Your task to perform on an android device: Search for vegetarian restaurants on Maps Image 0: 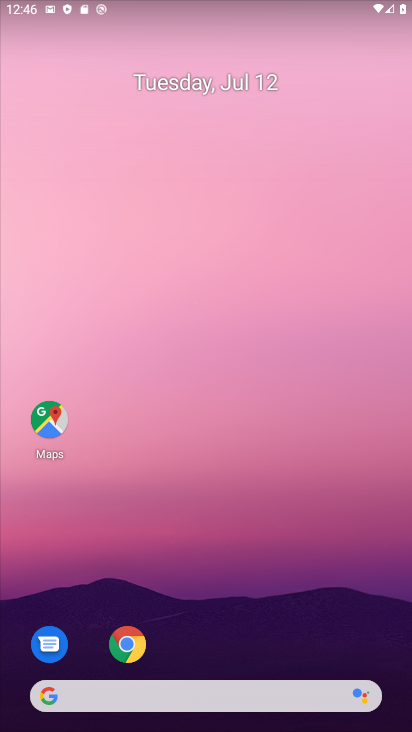
Step 0: drag from (239, 639) to (356, 85)
Your task to perform on an android device: Search for vegetarian restaurants on Maps Image 1: 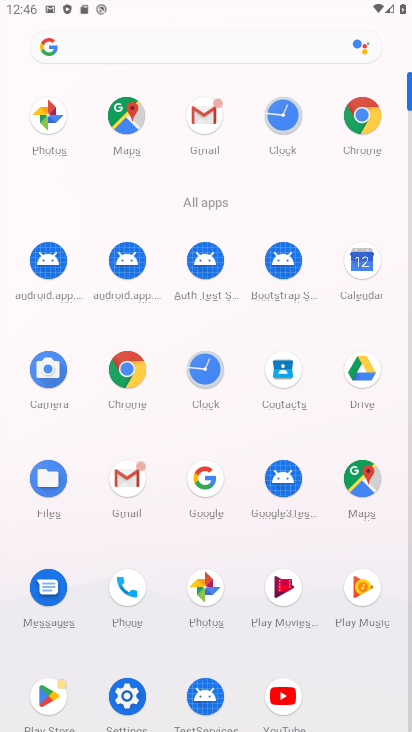
Step 1: click (350, 489)
Your task to perform on an android device: Search for vegetarian restaurants on Maps Image 2: 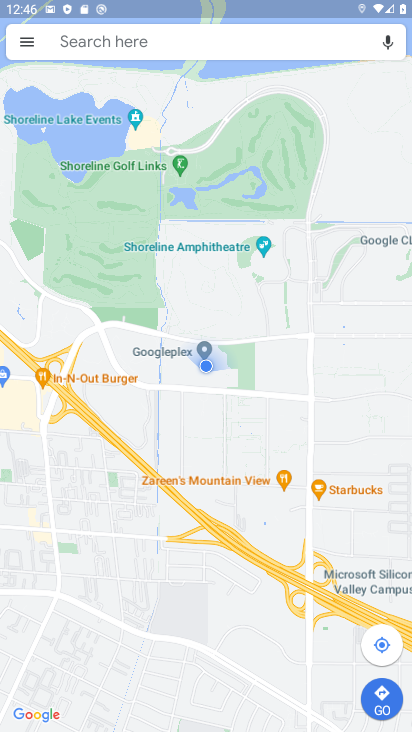
Step 2: click (192, 37)
Your task to perform on an android device: Search for vegetarian restaurants on Maps Image 3: 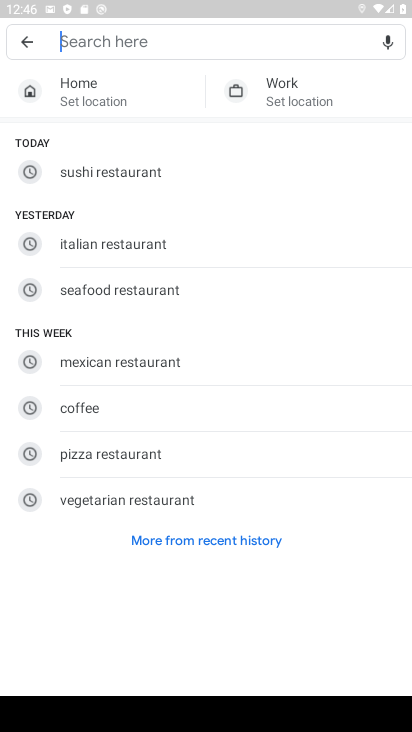
Step 3: type "vegetarian restaurants"
Your task to perform on an android device: Search for vegetarian restaurants on Maps Image 4: 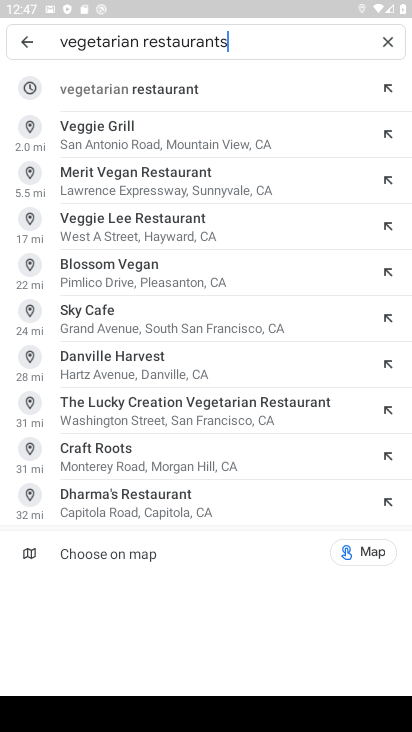
Step 4: click (213, 91)
Your task to perform on an android device: Search for vegetarian restaurants on Maps Image 5: 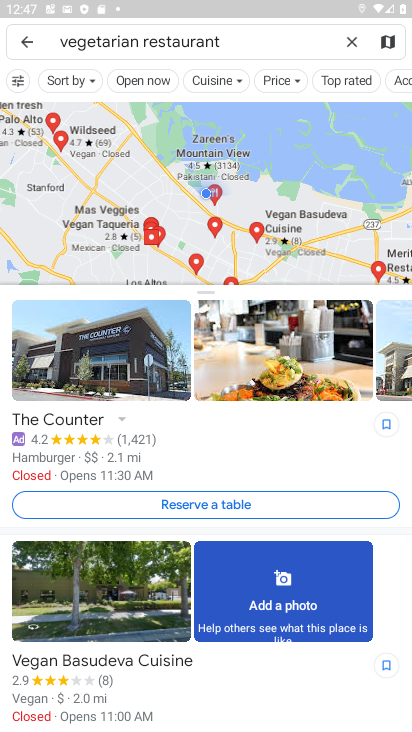
Step 5: task complete